Your task to perform on an android device: empty trash in the gmail app Image 0: 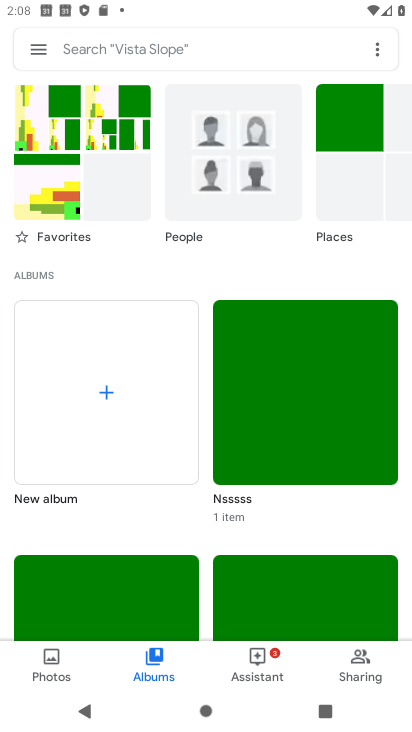
Step 0: press home button
Your task to perform on an android device: empty trash in the gmail app Image 1: 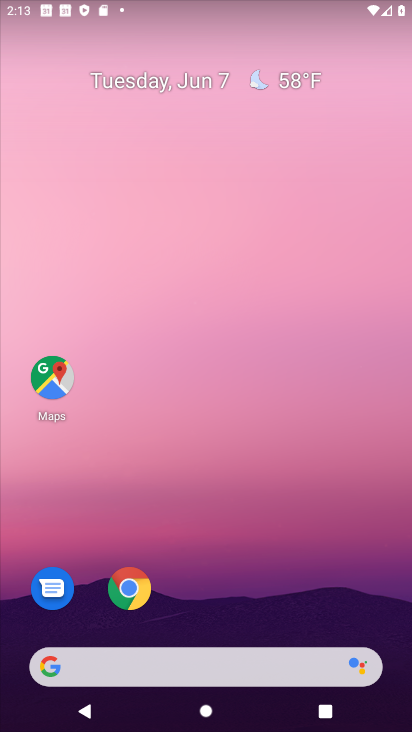
Step 1: drag from (347, 551) to (234, 42)
Your task to perform on an android device: empty trash in the gmail app Image 2: 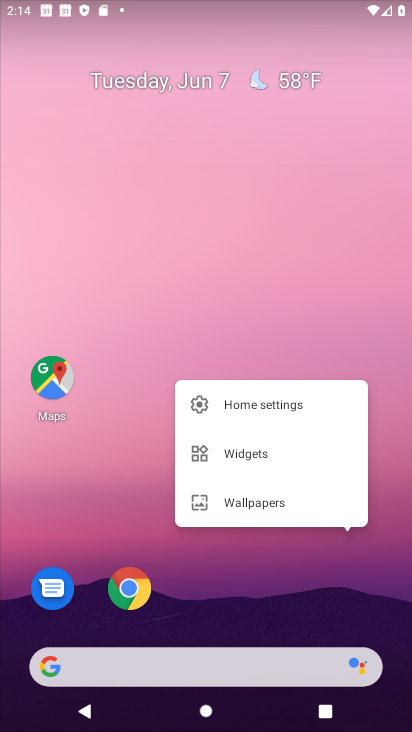
Step 2: click (355, 552)
Your task to perform on an android device: empty trash in the gmail app Image 3: 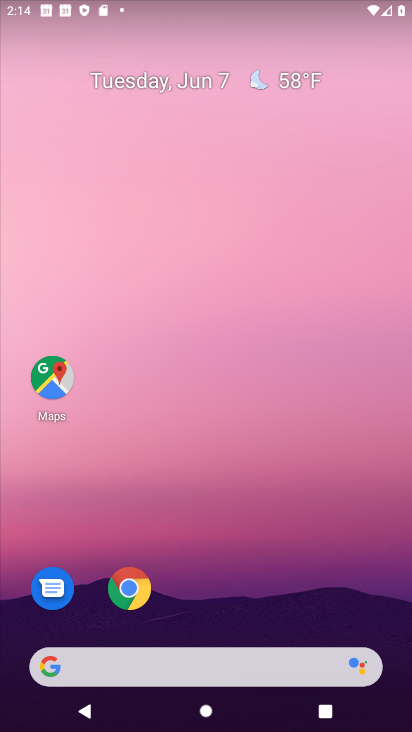
Step 3: task complete